Your task to perform on an android device: change the clock display to analog Image 0: 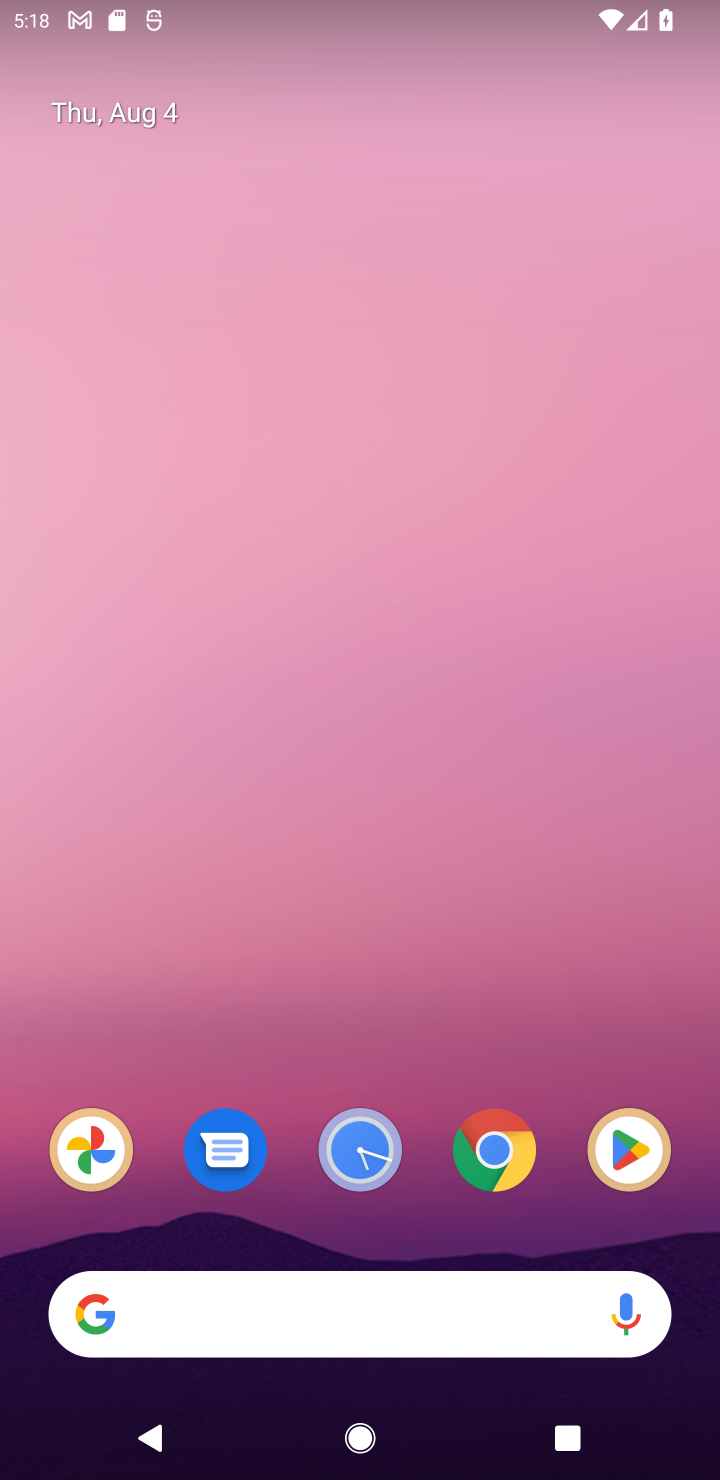
Step 0: drag from (332, 1203) to (12, 669)
Your task to perform on an android device: change the clock display to analog Image 1: 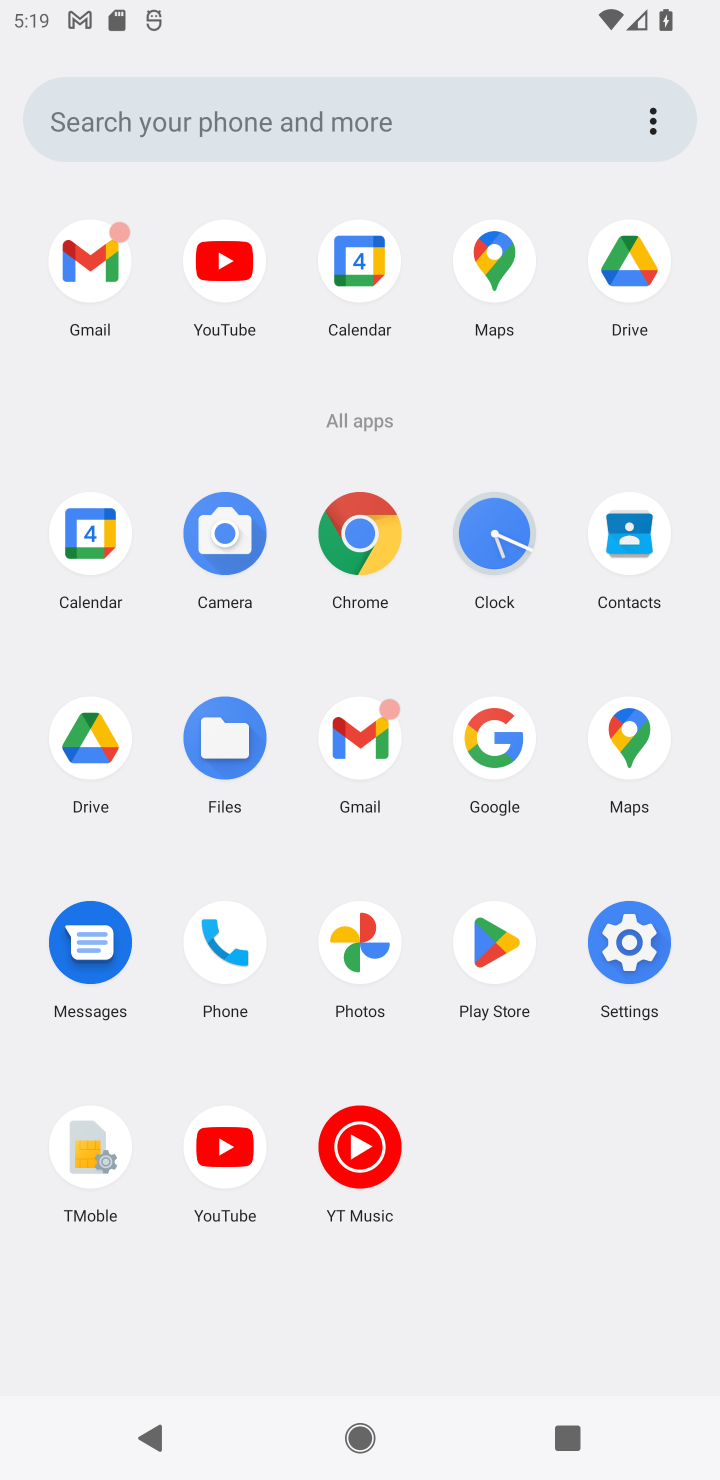
Step 1: click (518, 535)
Your task to perform on an android device: change the clock display to analog Image 2: 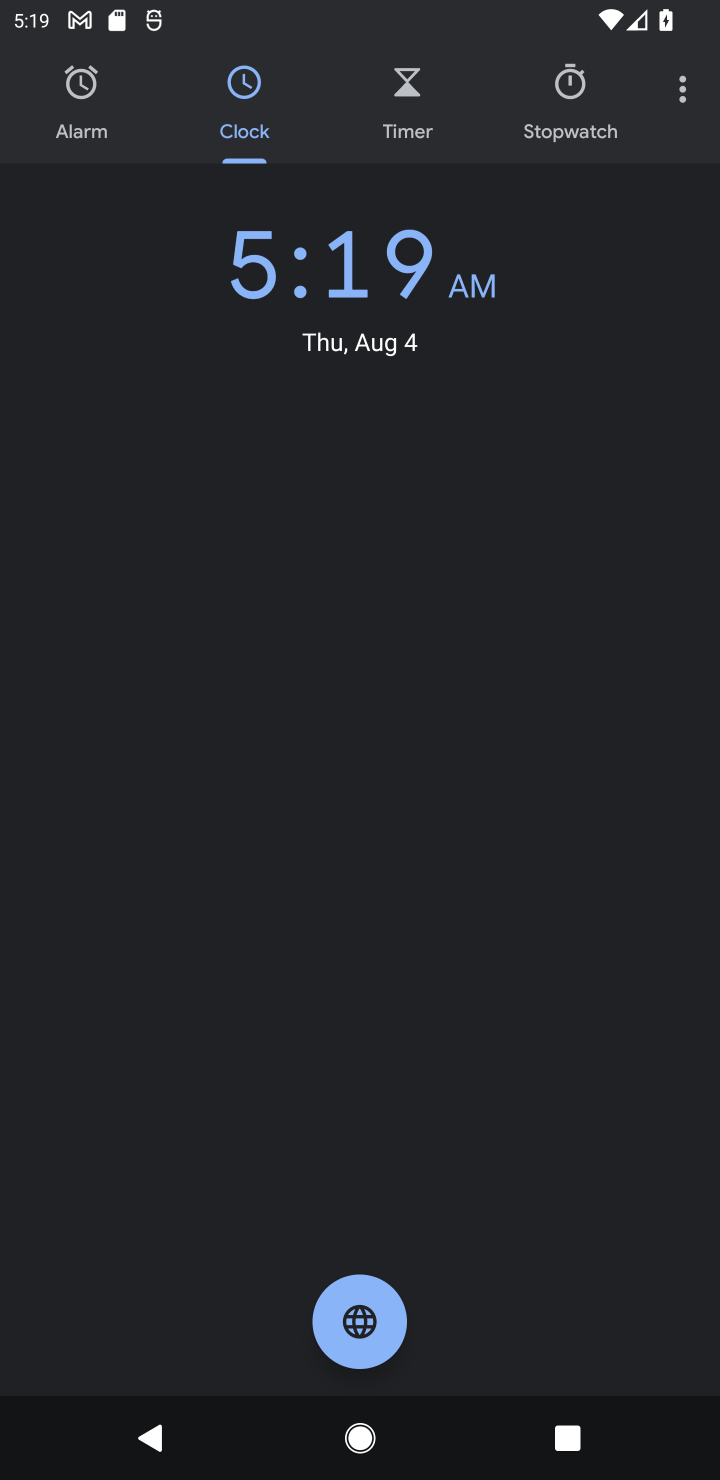
Step 2: click (693, 98)
Your task to perform on an android device: change the clock display to analog Image 3: 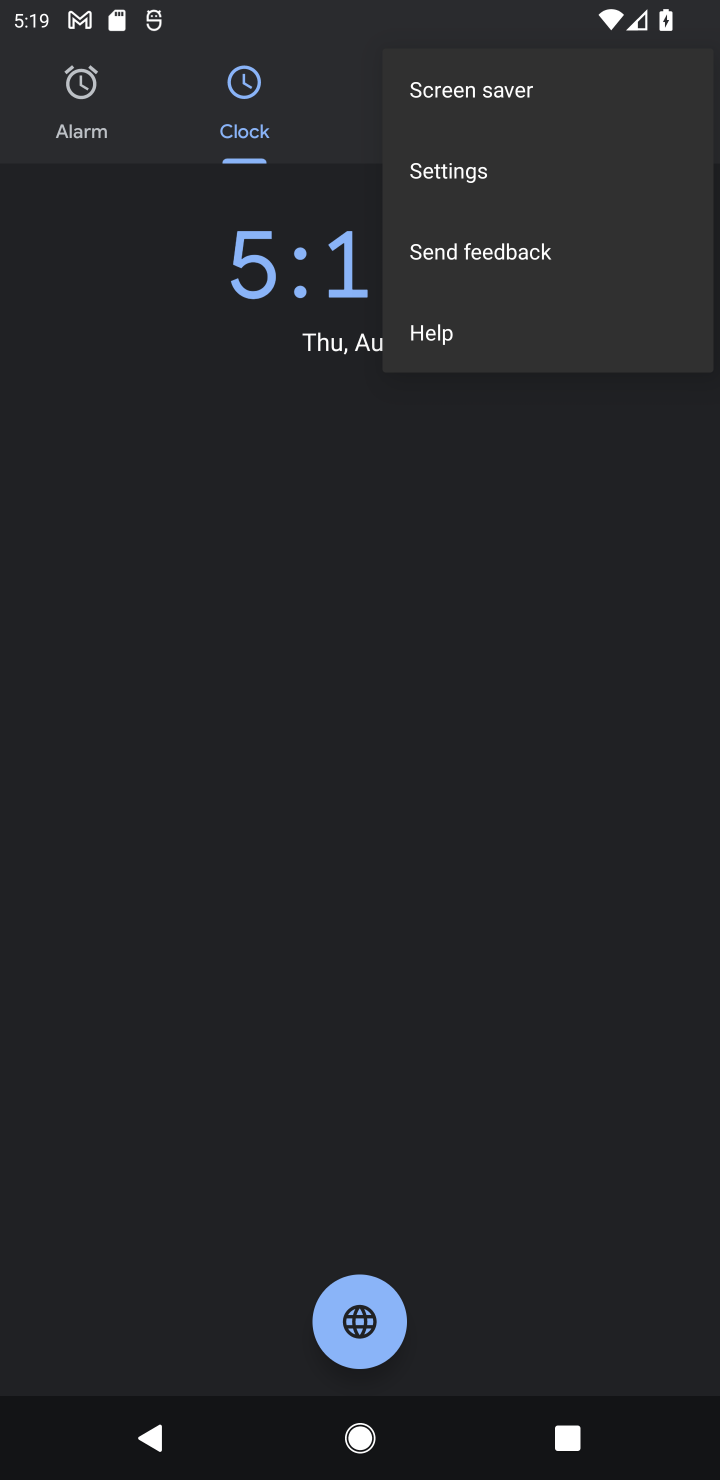
Step 3: click (437, 169)
Your task to perform on an android device: change the clock display to analog Image 4: 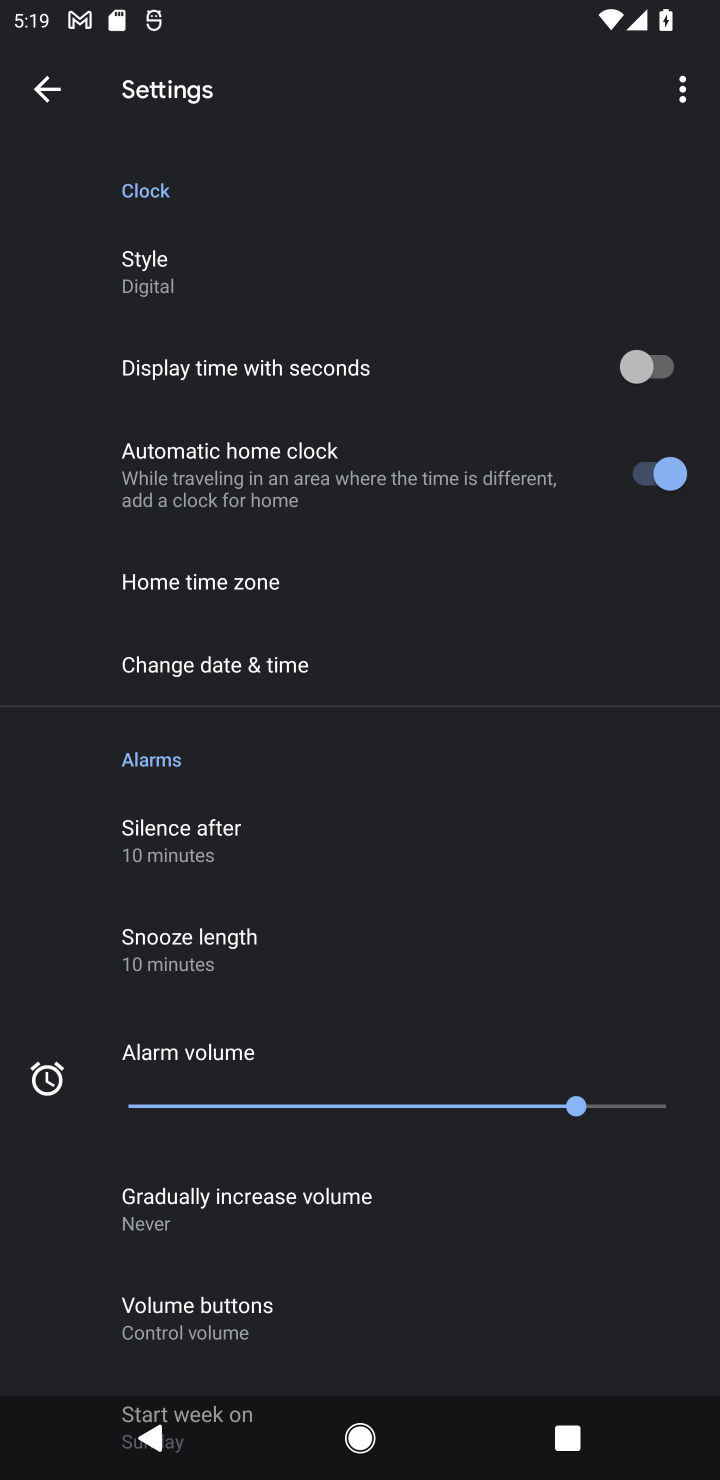
Step 4: click (174, 289)
Your task to perform on an android device: change the clock display to analog Image 5: 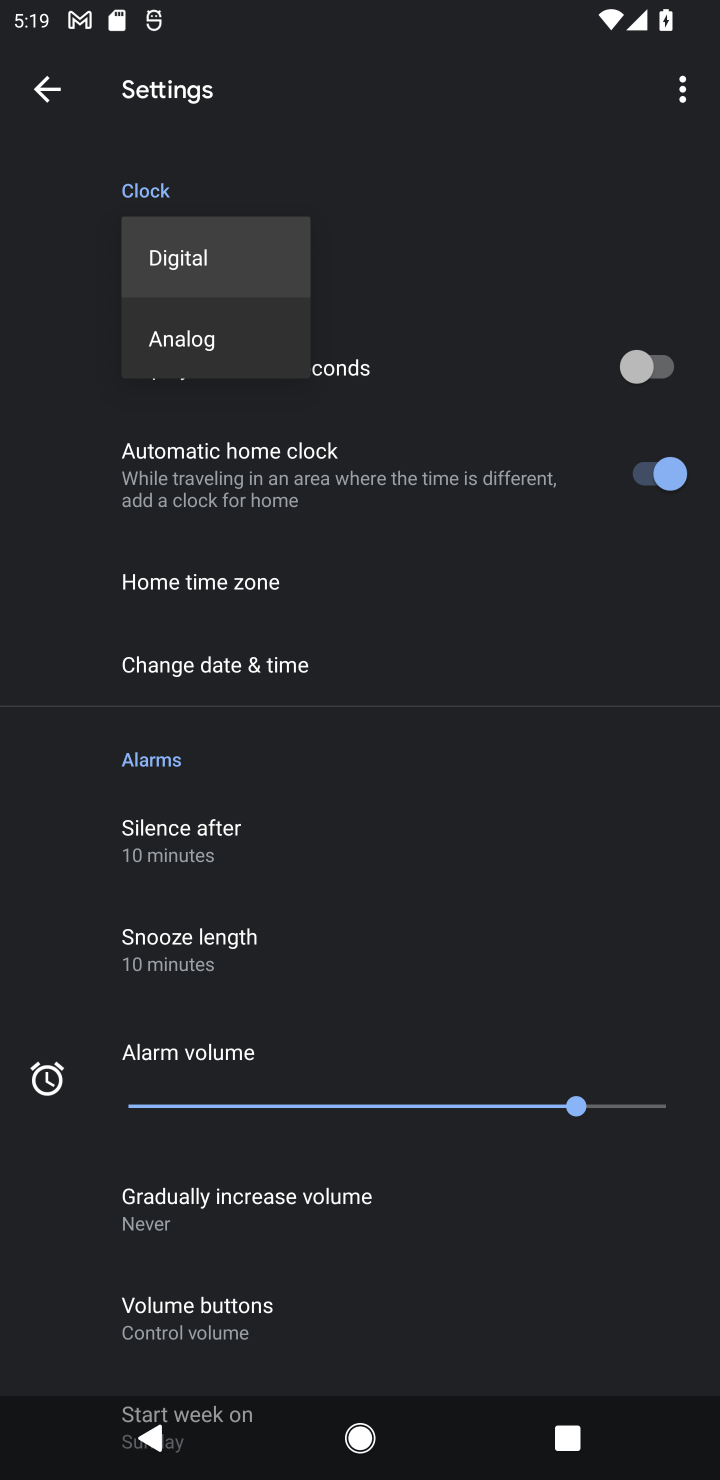
Step 5: click (250, 332)
Your task to perform on an android device: change the clock display to analog Image 6: 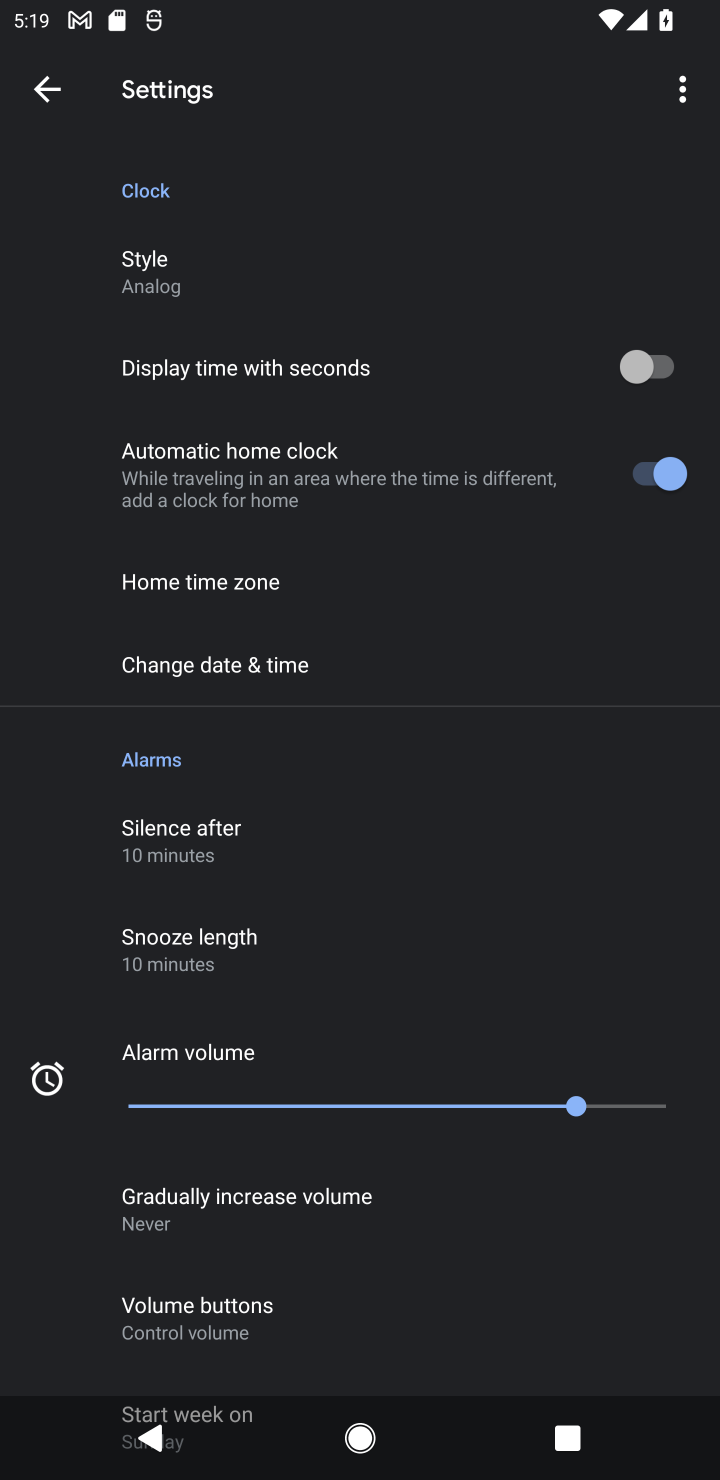
Step 6: task complete